Your task to perform on an android device: Toggle the flashlight Image 0: 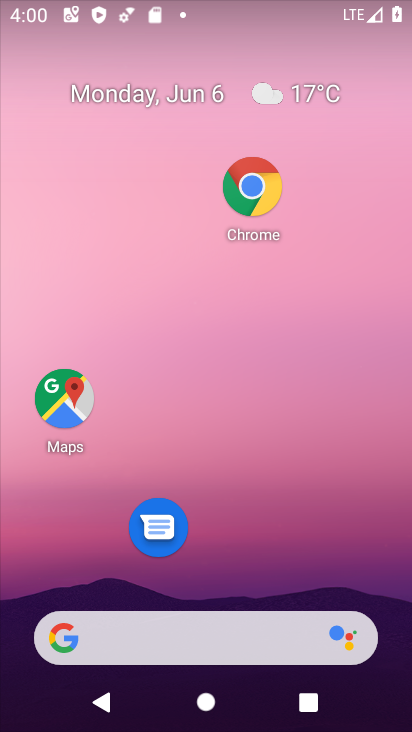
Step 0: drag from (222, 2) to (249, 480)
Your task to perform on an android device: Toggle the flashlight Image 1: 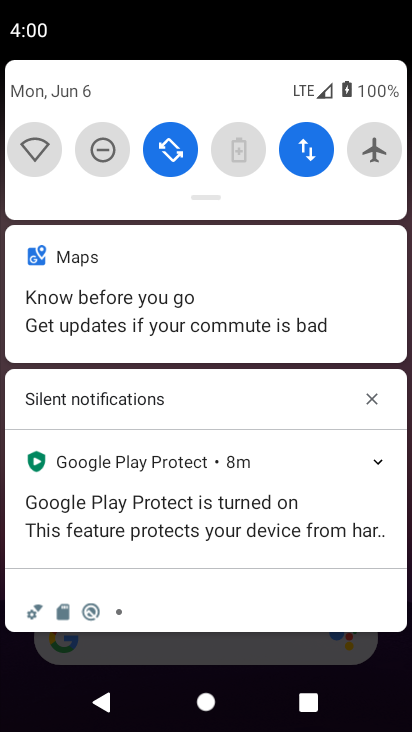
Step 1: drag from (306, 108) to (342, 494)
Your task to perform on an android device: Toggle the flashlight Image 2: 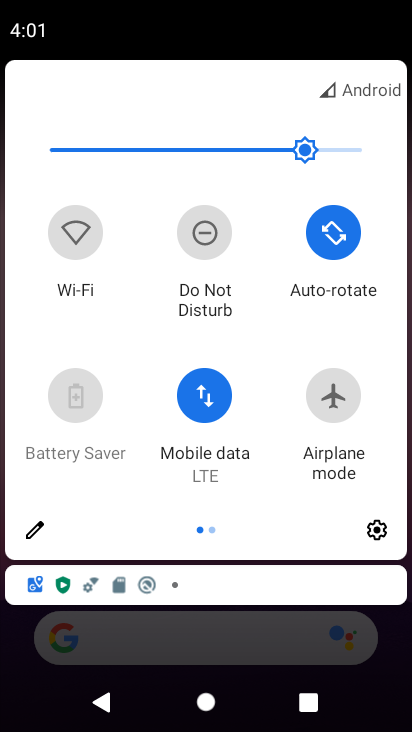
Step 2: drag from (362, 389) to (0, 544)
Your task to perform on an android device: Toggle the flashlight Image 3: 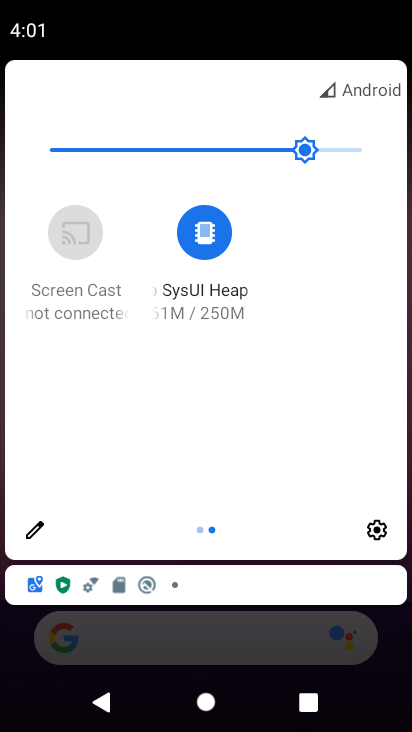
Step 3: click (39, 535)
Your task to perform on an android device: Toggle the flashlight Image 4: 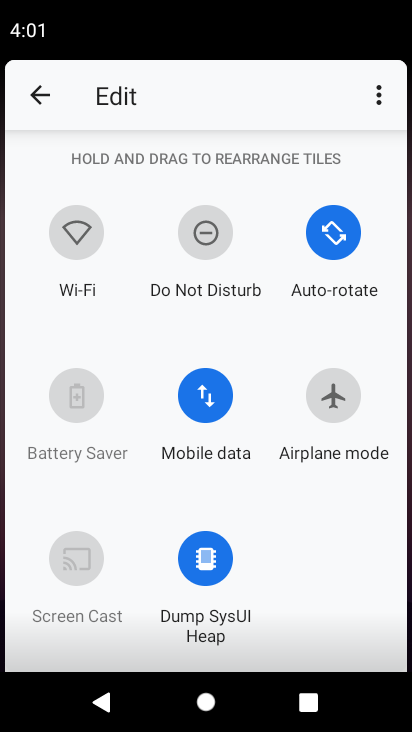
Step 4: task complete